Your task to perform on an android device: Open eBay Image 0: 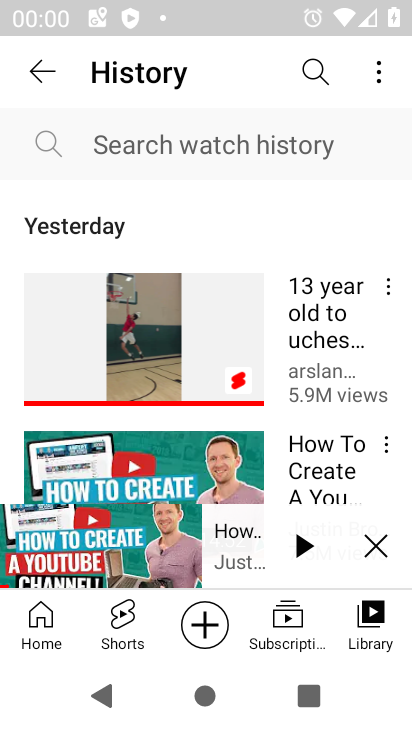
Step 0: press home button
Your task to perform on an android device: Open eBay Image 1: 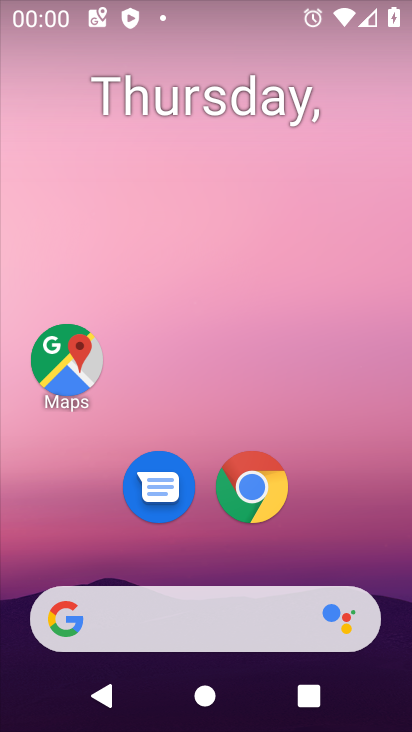
Step 1: click (255, 503)
Your task to perform on an android device: Open eBay Image 2: 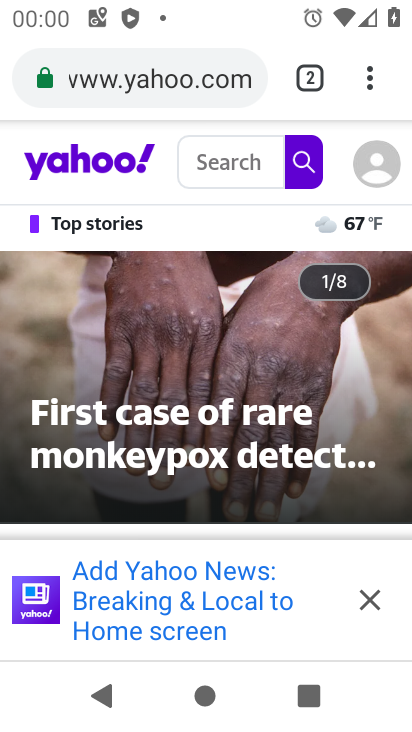
Step 2: click (102, 76)
Your task to perform on an android device: Open eBay Image 3: 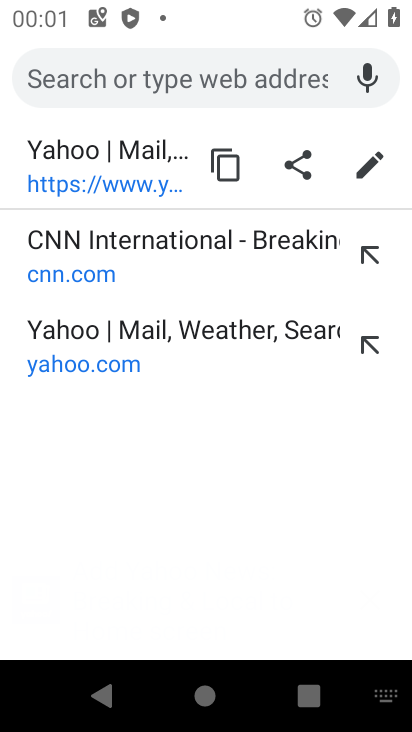
Step 3: type "ebay"
Your task to perform on an android device: Open eBay Image 4: 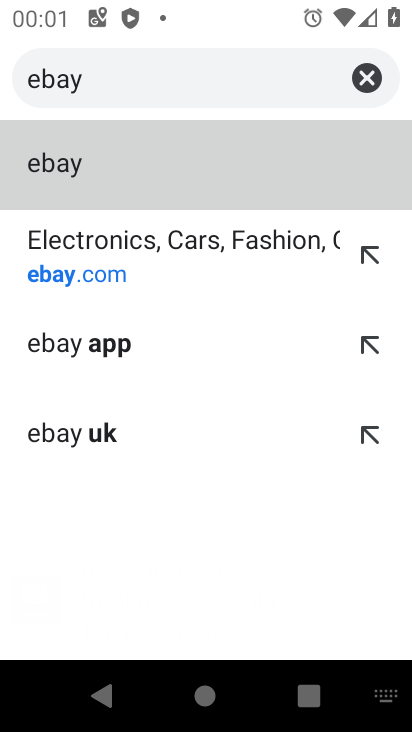
Step 4: click (73, 170)
Your task to perform on an android device: Open eBay Image 5: 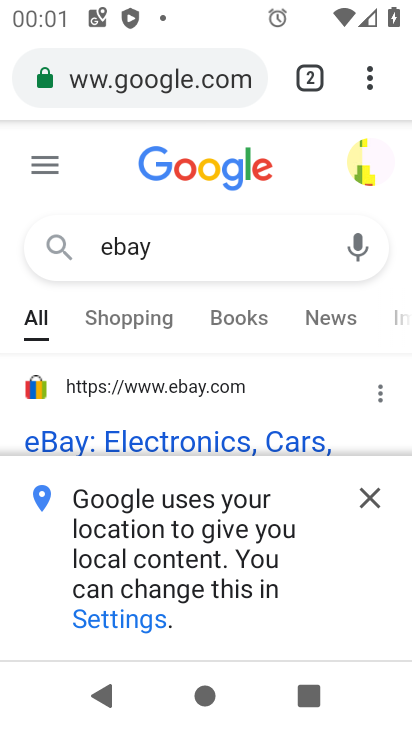
Step 5: click (372, 496)
Your task to perform on an android device: Open eBay Image 6: 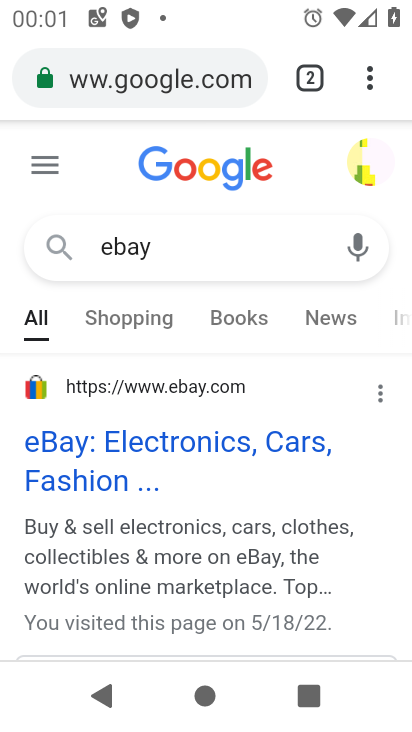
Step 6: click (55, 446)
Your task to perform on an android device: Open eBay Image 7: 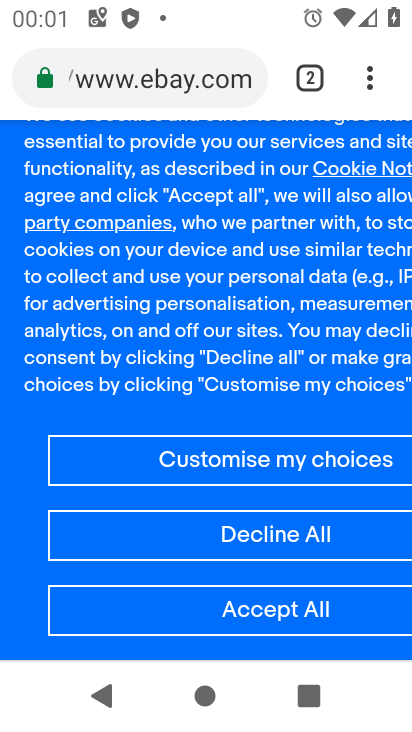
Step 7: task complete